Your task to perform on an android device: What's on my calendar tomorrow? Image 0: 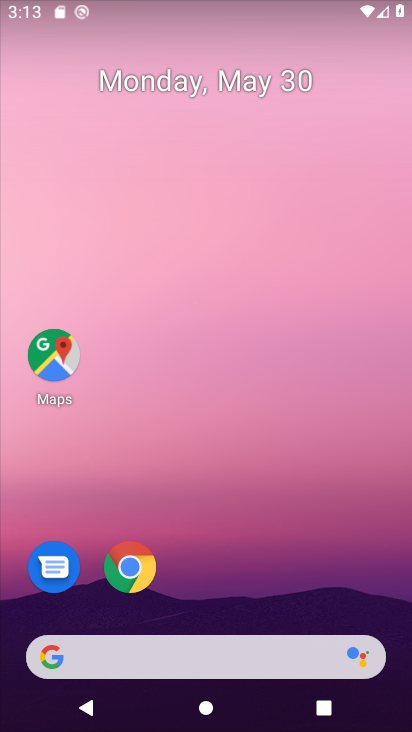
Step 0: drag from (226, 599) to (242, 38)
Your task to perform on an android device: What's on my calendar tomorrow? Image 1: 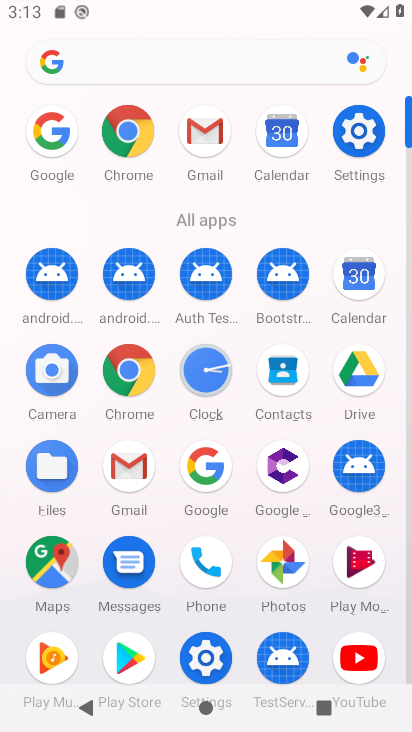
Step 1: click (351, 290)
Your task to perform on an android device: What's on my calendar tomorrow? Image 2: 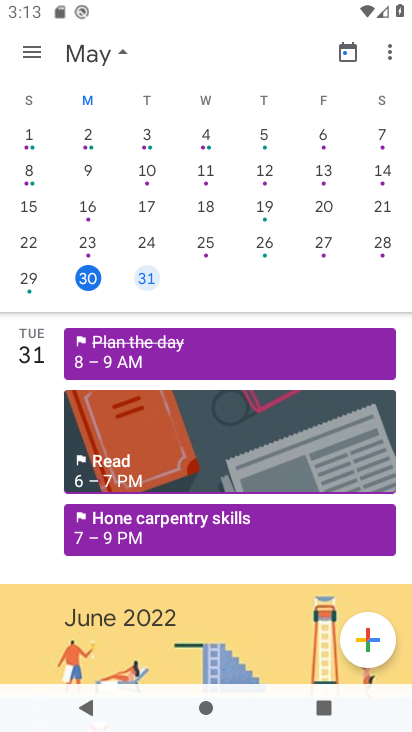
Step 2: click (146, 290)
Your task to perform on an android device: What's on my calendar tomorrow? Image 3: 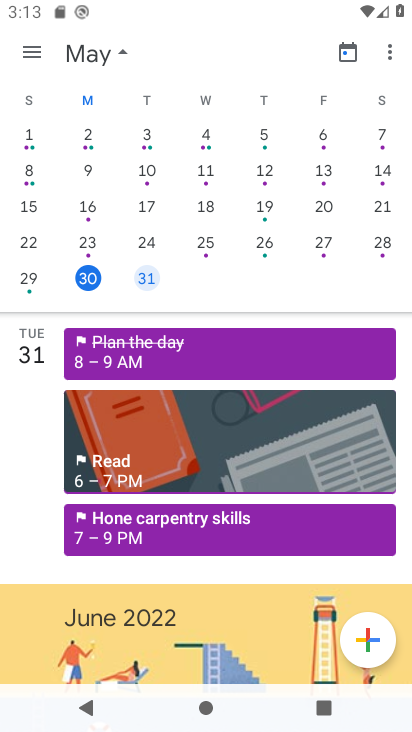
Step 3: task complete